Your task to perform on an android device: toggle airplane mode Image 0: 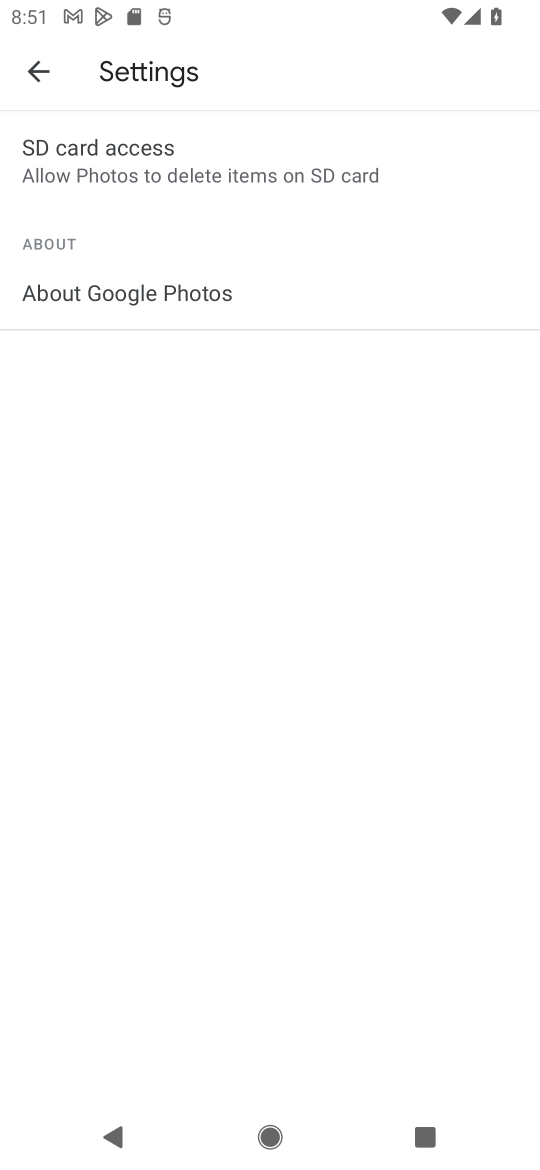
Step 0: press home button
Your task to perform on an android device: toggle airplane mode Image 1: 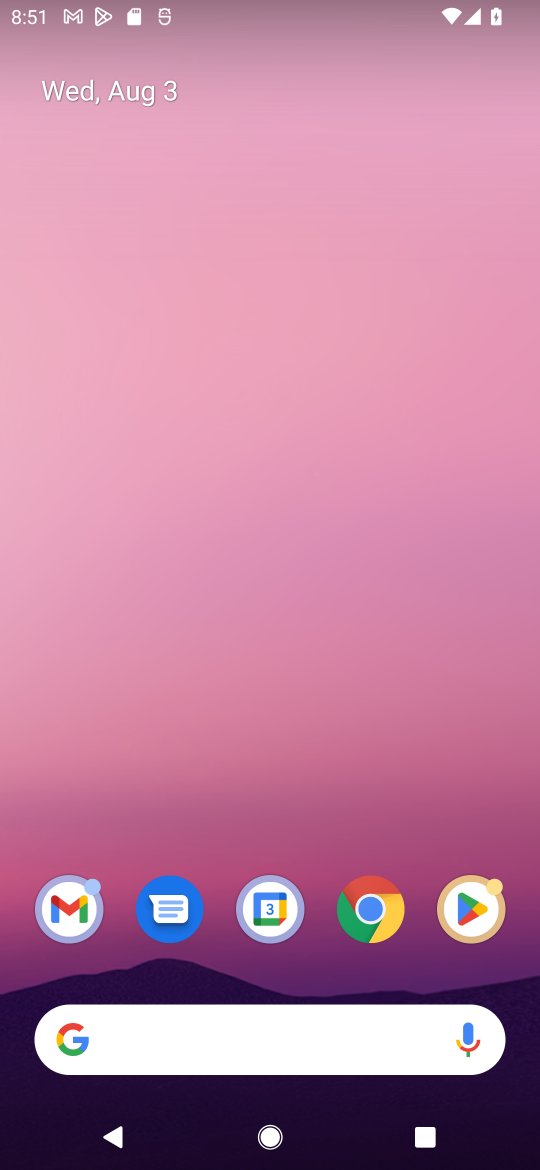
Step 1: drag from (413, 811) to (401, 193)
Your task to perform on an android device: toggle airplane mode Image 2: 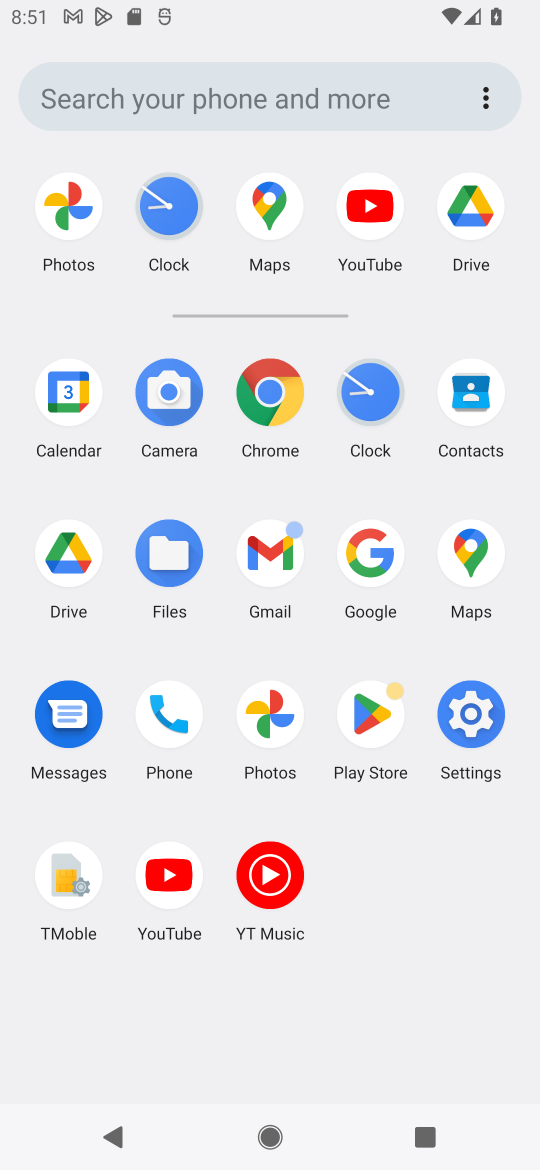
Step 2: click (479, 733)
Your task to perform on an android device: toggle airplane mode Image 3: 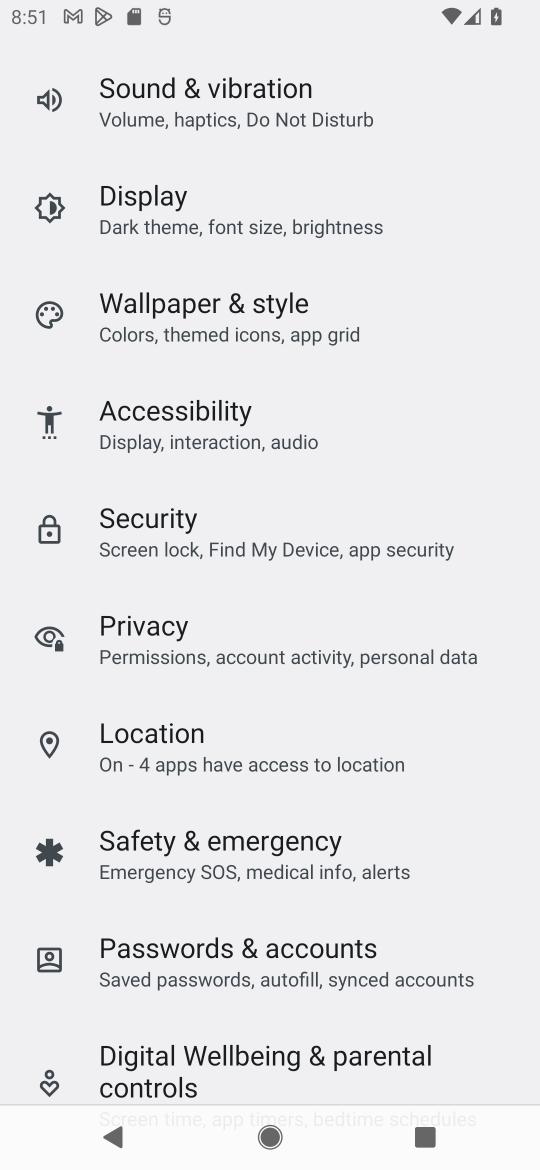
Step 3: drag from (481, 563) to (478, 747)
Your task to perform on an android device: toggle airplane mode Image 4: 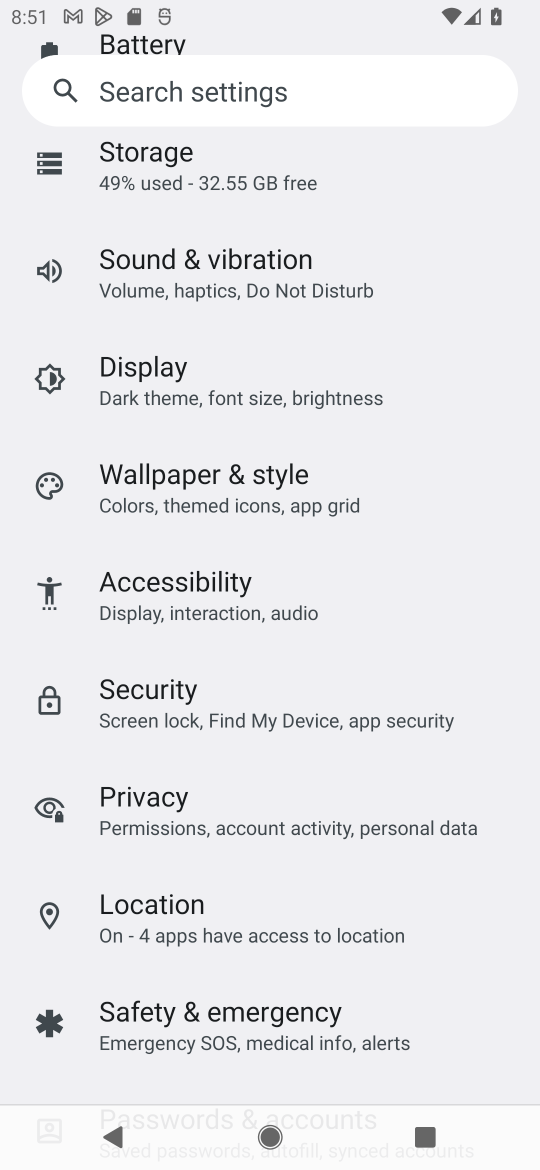
Step 4: drag from (481, 600) to (481, 772)
Your task to perform on an android device: toggle airplane mode Image 5: 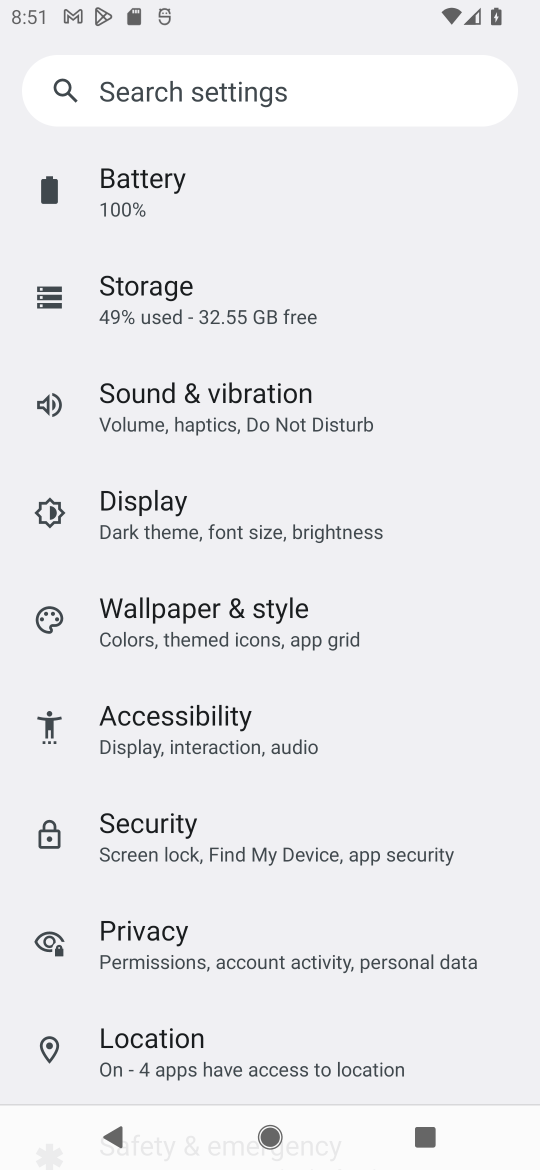
Step 5: drag from (479, 620) to (473, 788)
Your task to perform on an android device: toggle airplane mode Image 6: 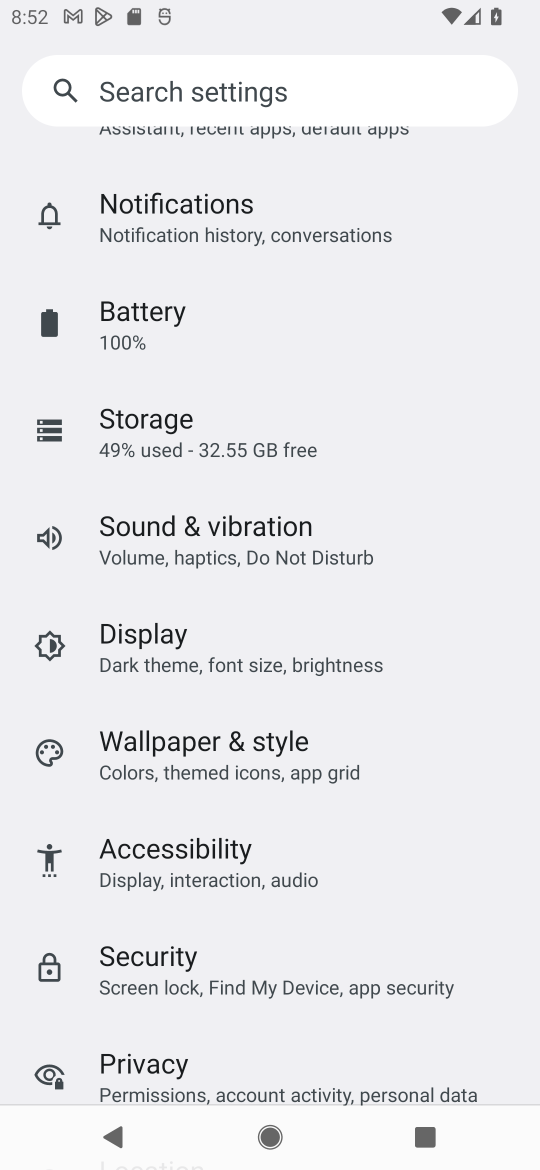
Step 6: drag from (465, 605) to (465, 770)
Your task to perform on an android device: toggle airplane mode Image 7: 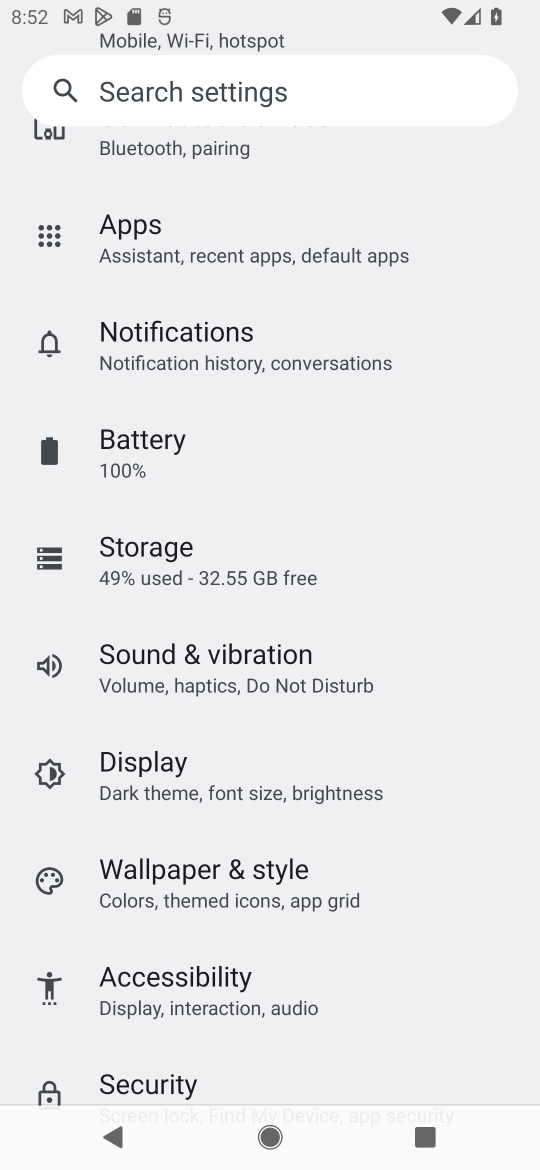
Step 7: drag from (466, 562) to (469, 814)
Your task to perform on an android device: toggle airplane mode Image 8: 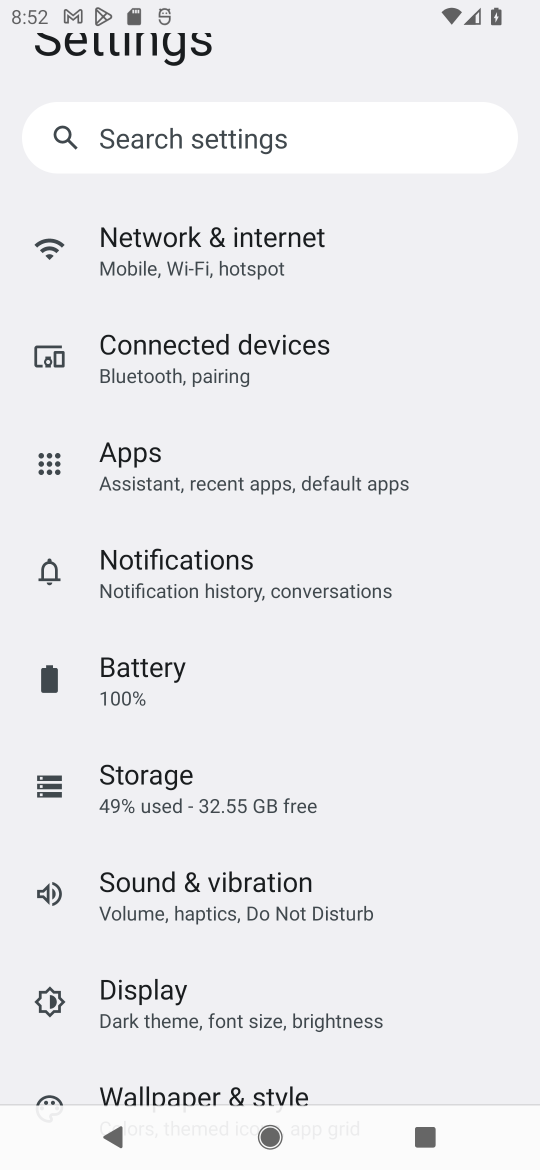
Step 8: drag from (472, 535) to (472, 777)
Your task to perform on an android device: toggle airplane mode Image 9: 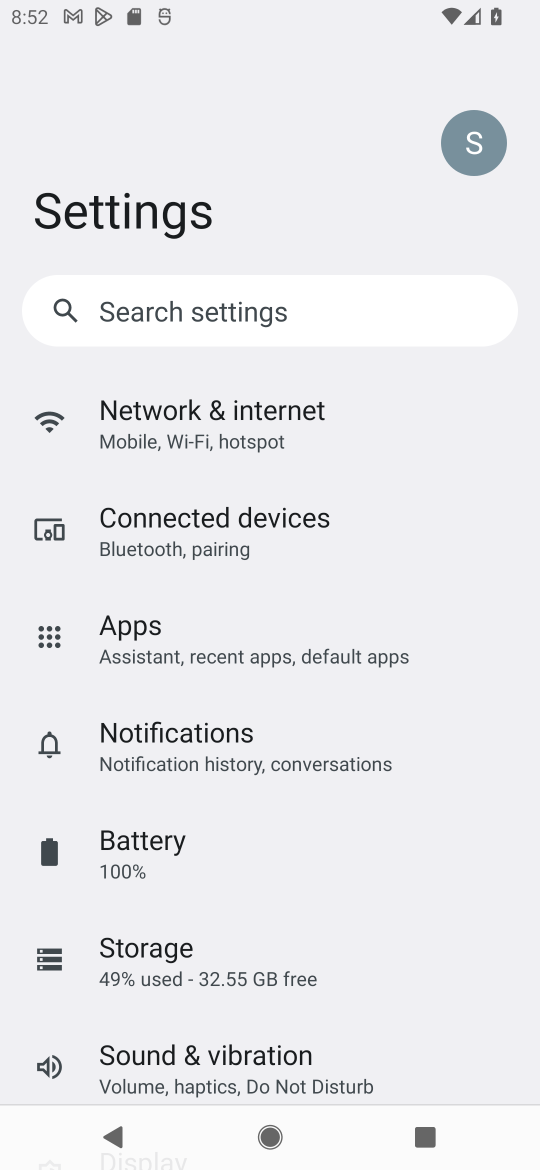
Step 9: drag from (458, 545) to (451, 788)
Your task to perform on an android device: toggle airplane mode Image 10: 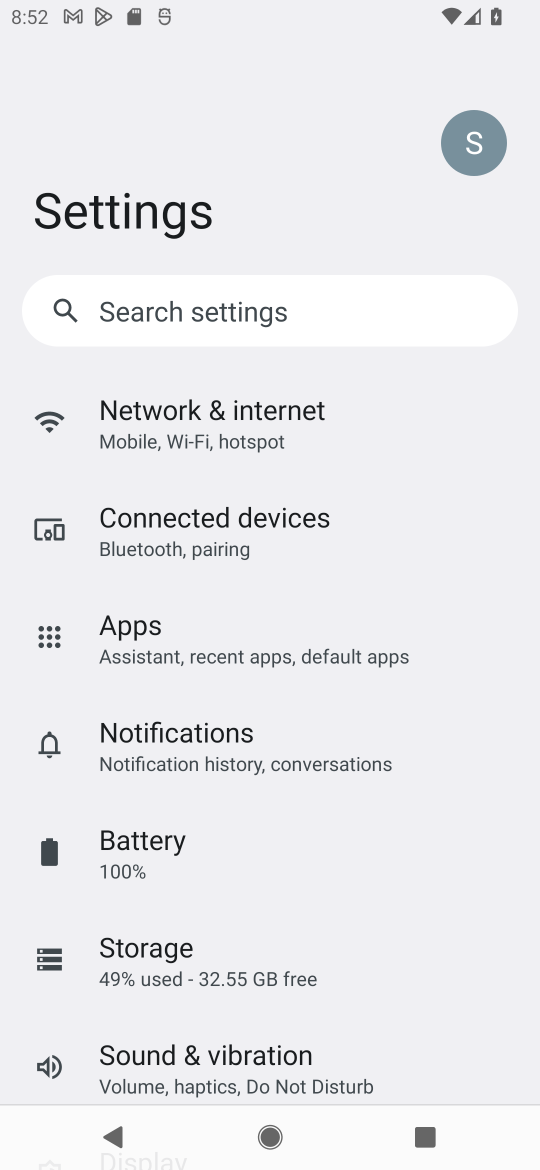
Step 10: click (337, 427)
Your task to perform on an android device: toggle airplane mode Image 11: 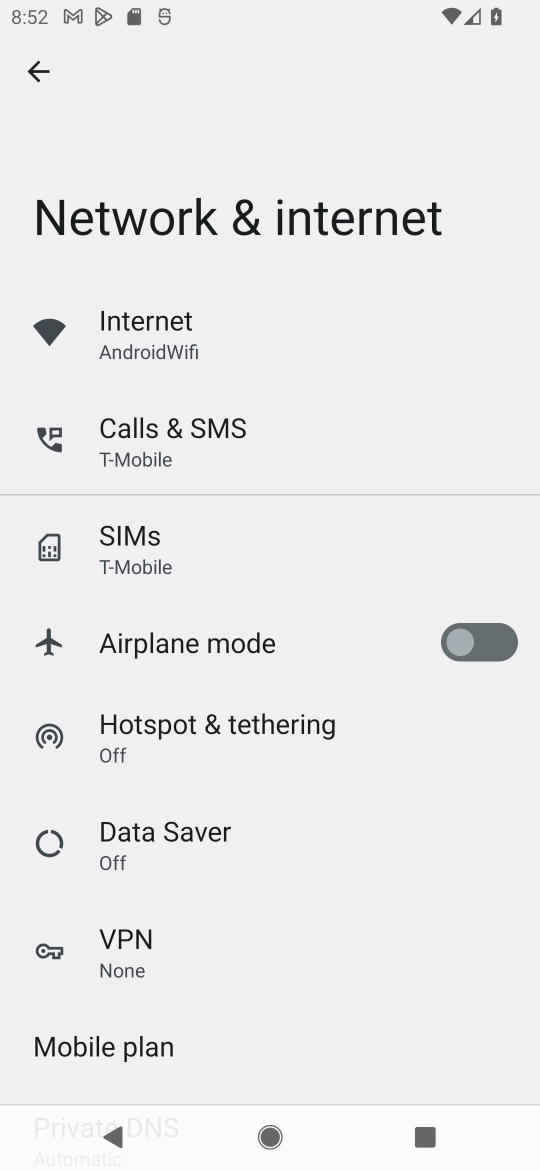
Step 11: task complete